Your task to perform on an android device: Open my contact list Image 0: 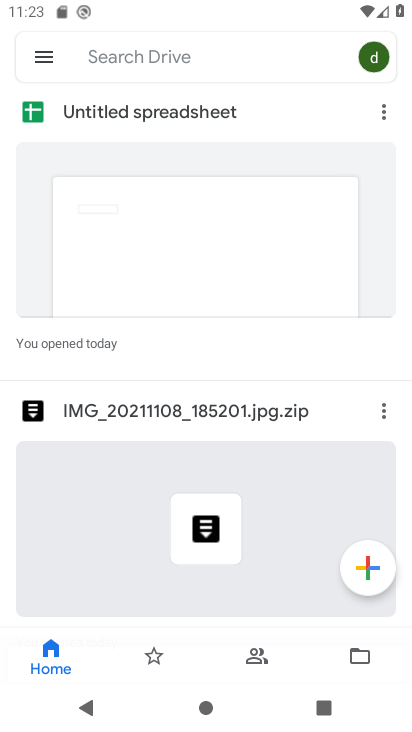
Step 0: press home button
Your task to perform on an android device: Open my contact list Image 1: 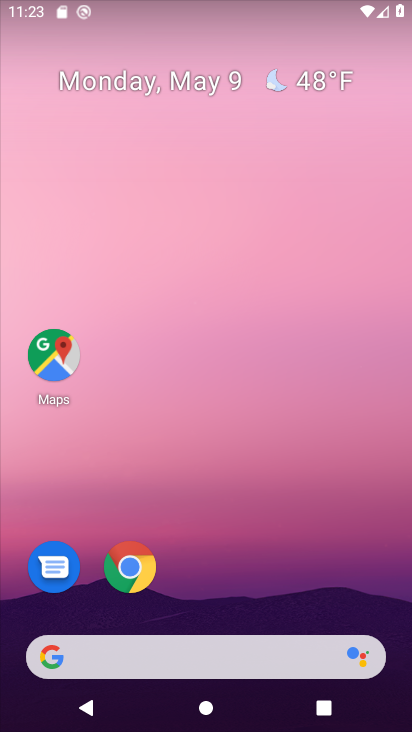
Step 1: drag from (233, 612) to (323, 1)
Your task to perform on an android device: Open my contact list Image 2: 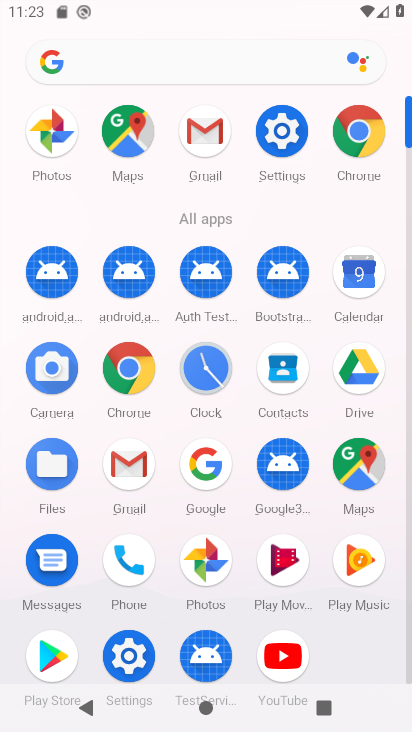
Step 2: click (281, 379)
Your task to perform on an android device: Open my contact list Image 3: 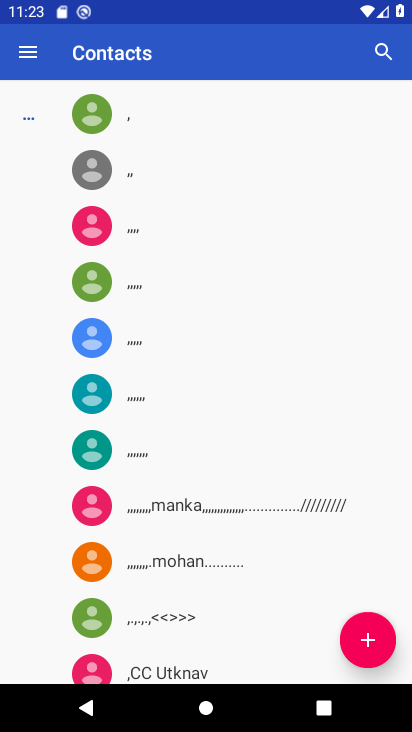
Step 3: task complete